Your task to perform on an android device: Open calendar and show me the third week of next month Image 0: 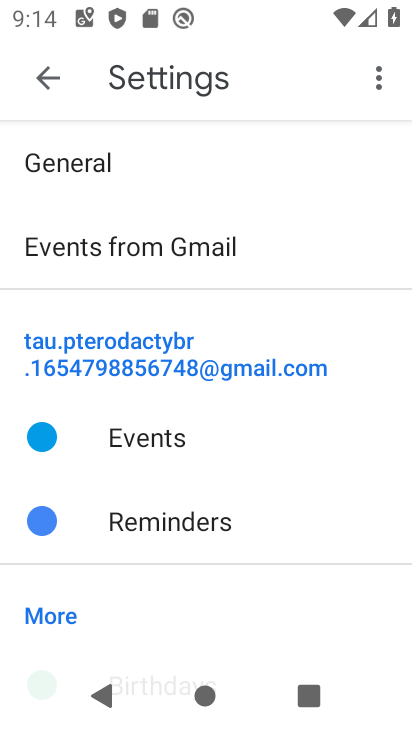
Step 0: press back button
Your task to perform on an android device: Open calendar and show me the third week of next month Image 1: 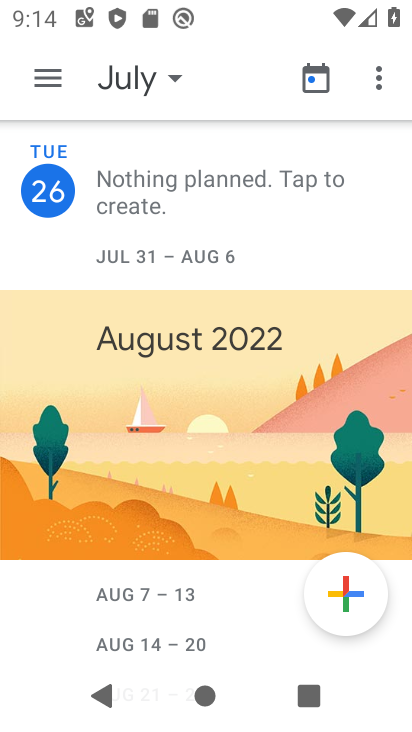
Step 1: press back button
Your task to perform on an android device: Open calendar and show me the third week of next month Image 2: 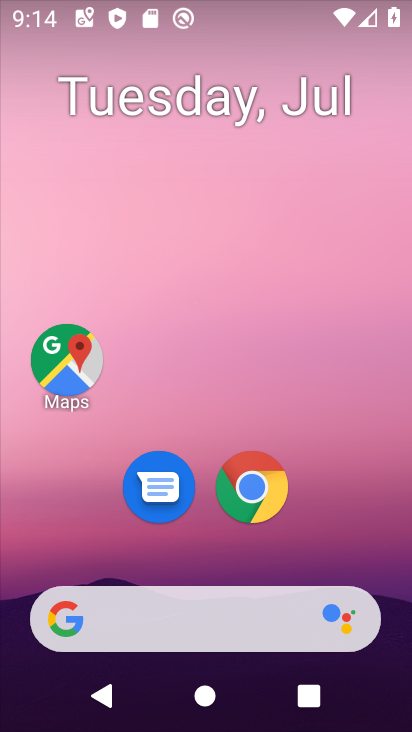
Step 2: drag from (147, 554) to (264, 30)
Your task to perform on an android device: Open calendar and show me the third week of next month Image 3: 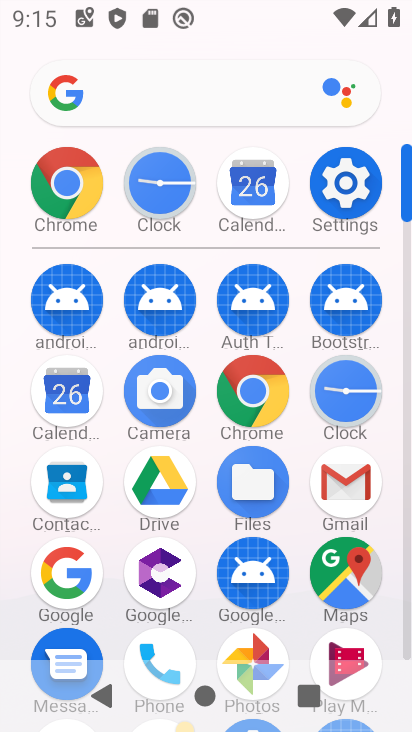
Step 3: click (57, 417)
Your task to perform on an android device: Open calendar and show me the third week of next month Image 4: 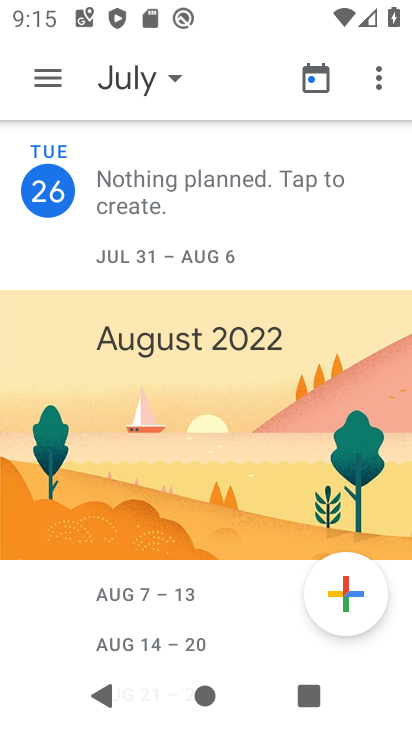
Step 4: click (173, 76)
Your task to perform on an android device: Open calendar and show me the third week of next month Image 5: 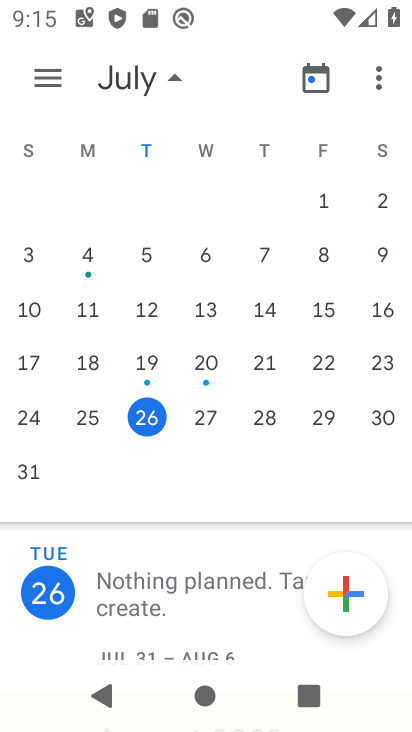
Step 5: drag from (376, 293) to (13, 295)
Your task to perform on an android device: Open calendar and show me the third week of next month Image 6: 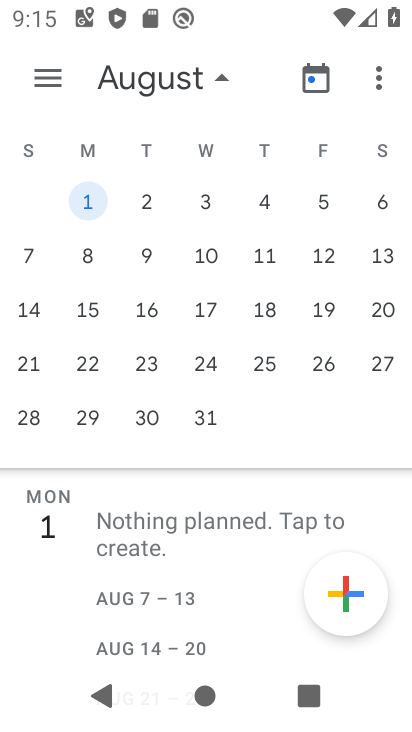
Step 6: click (87, 306)
Your task to perform on an android device: Open calendar and show me the third week of next month Image 7: 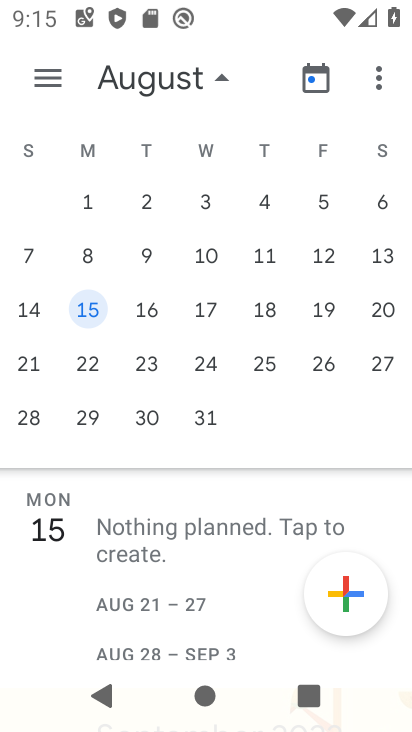
Step 7: task complete